Your task to perform on an android device: find which apps use the phone's location Image 0: 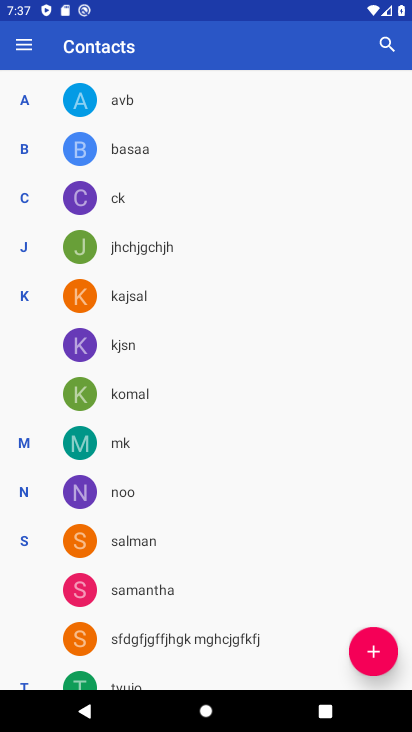
Step 0: press home button
Your task to perform on an android device: find which apps use the phone's location Image 1: 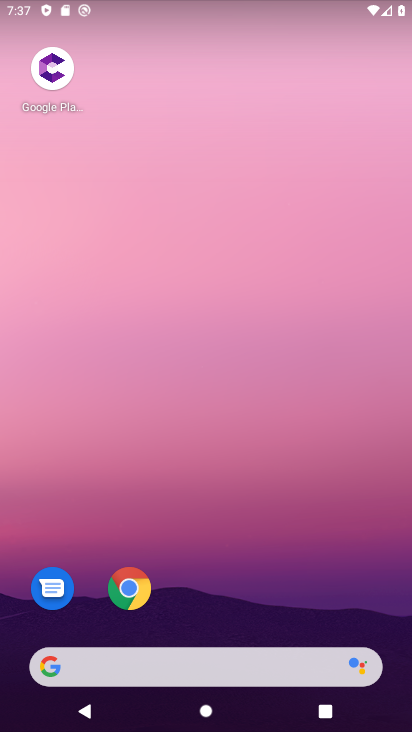
Step 1: drag from (257, 621) to (310, 128)
Your task to perform on an android device: find which apps use the phone's location Image 2: 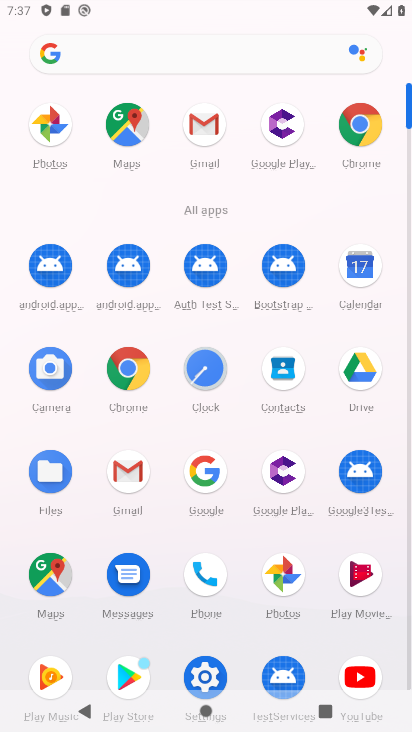
Step 2: click (207, 675)
Your task to perform on an android device: find which apps use the phone's location Image 3: 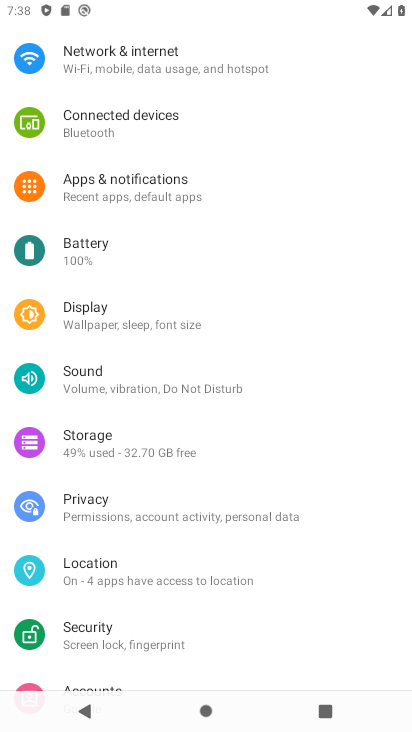
Step 3: click (139, 557)
Your task to perform on an android device: find which apps use the phone's location Image 4: 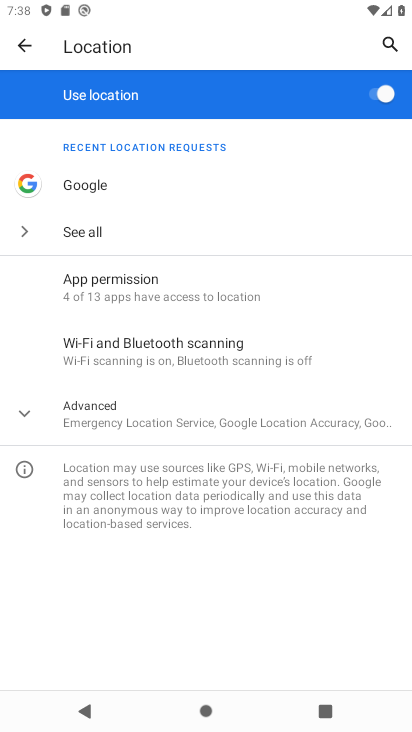
Step 4: click (213, 434)
Your task to perform on an android device: find which apps use the phone's location Image 5: 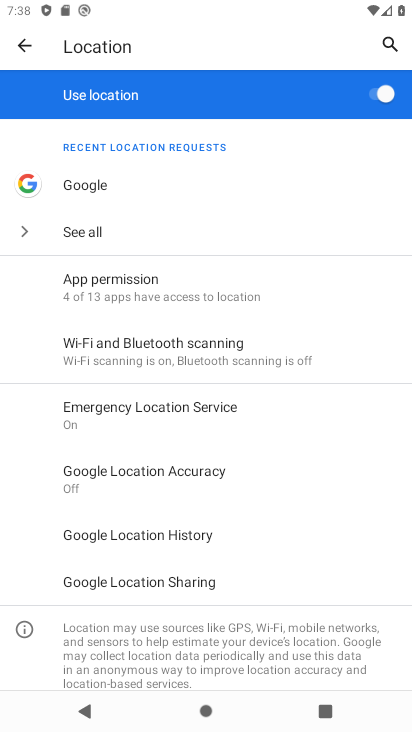
Step 5: click (71, 239)
Your task to perform on an android device: find which apps use the phone's location Image 6: 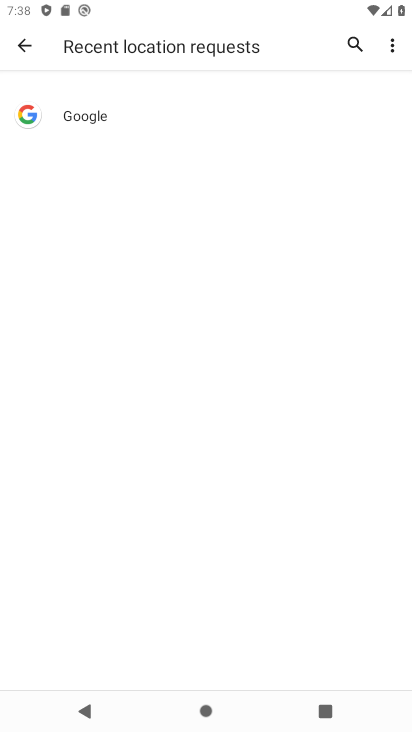
Step 6: task complete